Your task to perform on an android device: turn on wifi Image 0: 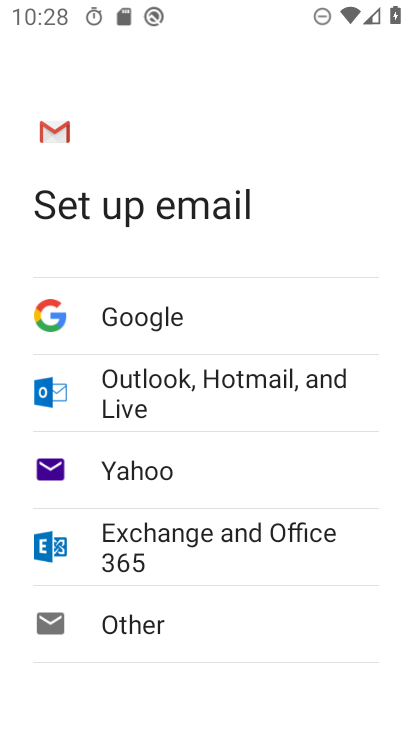
Step 0: press back button
Your task to perform on an android device: turn on wifi Image 1: 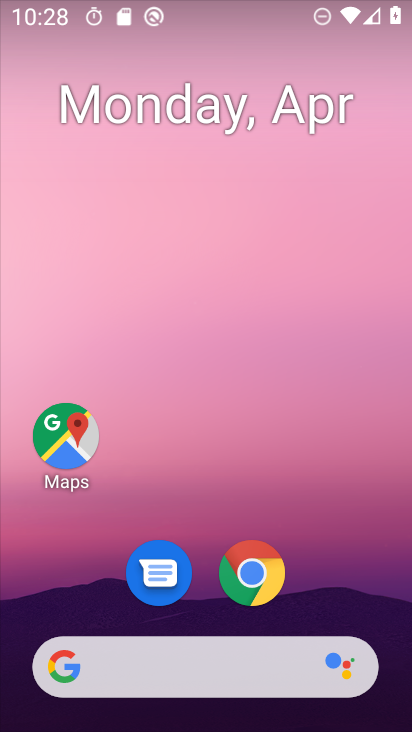
Step 1: drag from (361, 424) to (375, 48)
Your task to perform on an android device: turn on wifi Image 2: 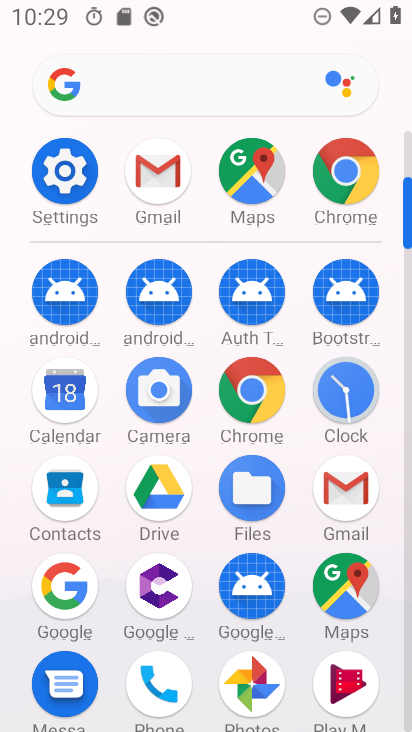
Step 2: click (55, 174)
Your task to perform on an android device: turn on wifi Image 3: 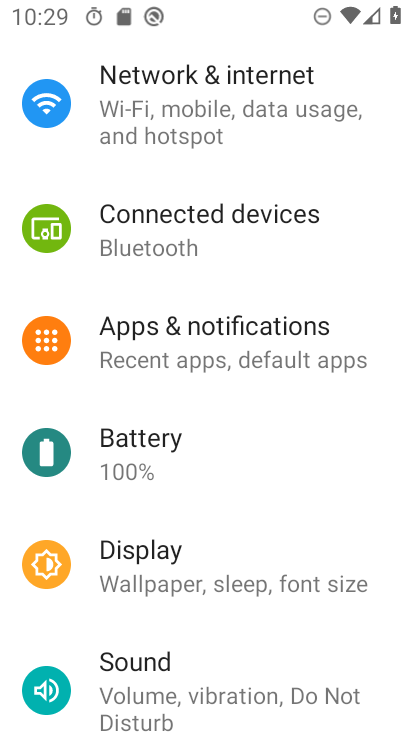
Step 3: click (178, 99)
Your task to perform on an android device: turn on wifi Image 4: 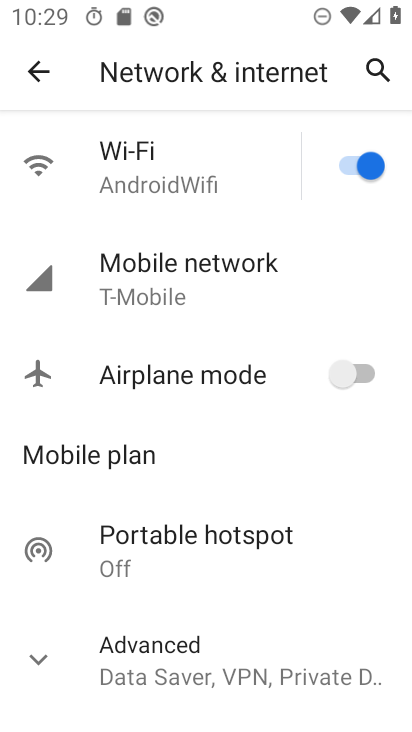
Step 4: click (166, 157)
Your task to perform on an android device: turn on wifi Image 5: 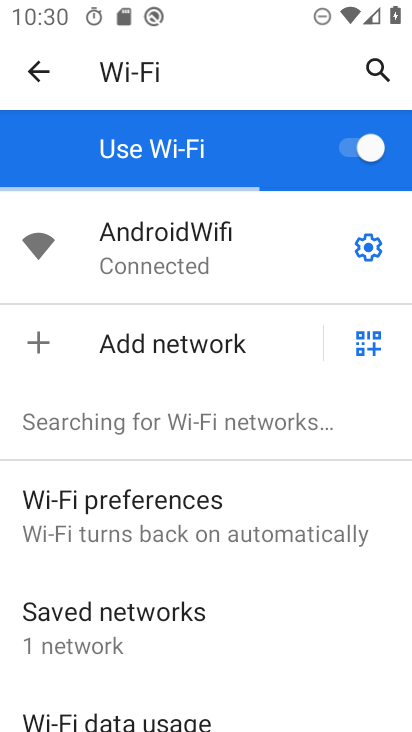
Step 5: task complete